Your task to perform on an android device: turn off airplane mode Image 0: 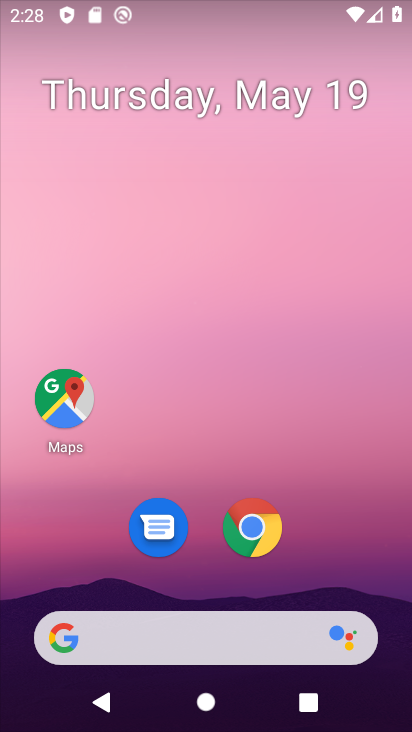
Step 0: drag from (358, 689) to (225, 141)
Your task to perform on an android device: turn off airplane mode Image 1: 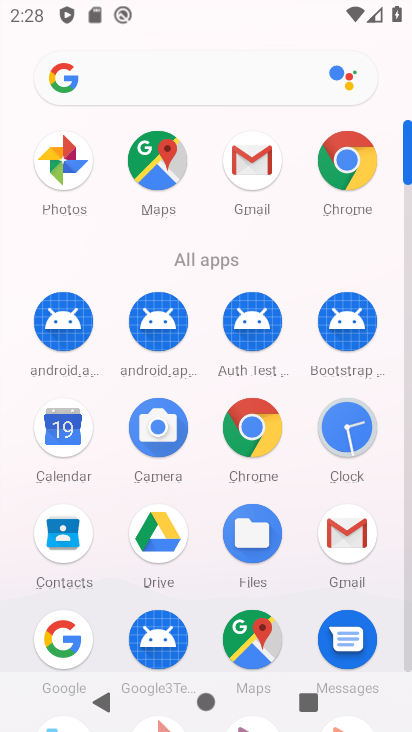
Step 1: drag from (278, 445) to (241, 113)
Your task to perform on an android device: turn off airplane mode Image 2: 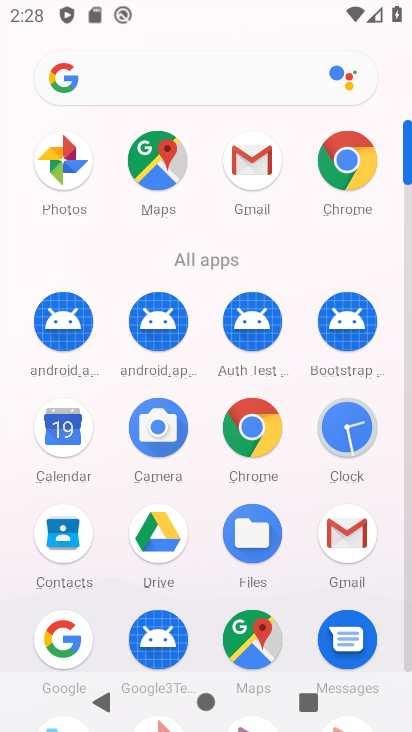
Step 2: drag from (261, 459) to (271, 93)
Your task to perform on an android device: turn off airplane mode Image 3: 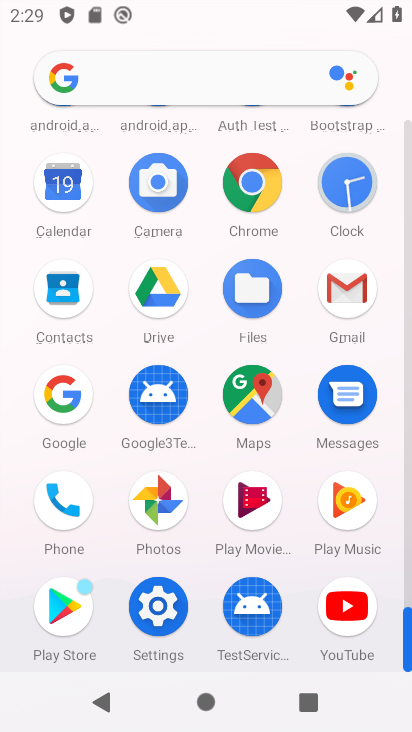
Step 3: click (159, 610)
Your task to perform on an android device: turn off airplane mode Image 4: 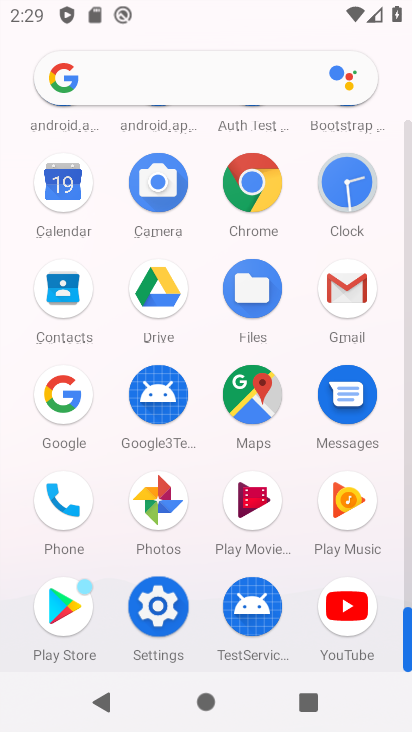
Step 4: click (160, 609)
Your task to perform on an android device: turn off airplane mode Image 5: 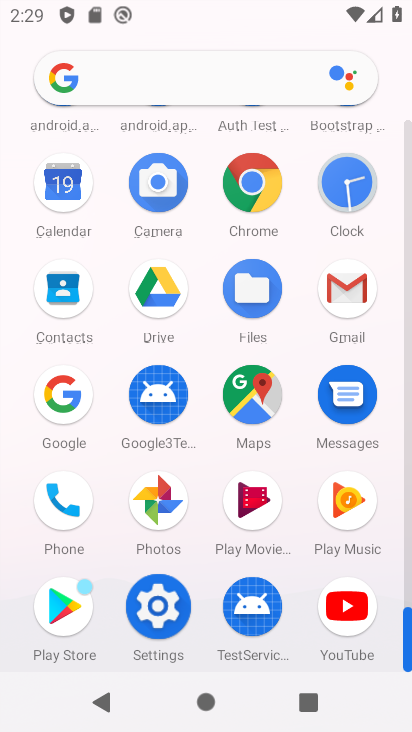
Step 5: click (160, 609)
Your task to perform on an android device: turn off airplane mode Image 6: 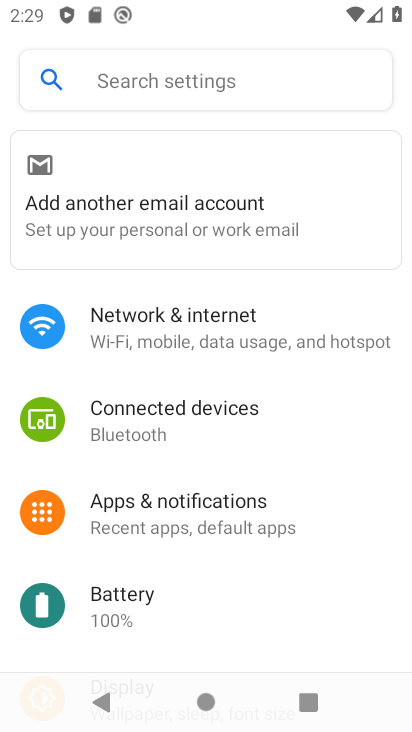
Step 6: drag from (192, 572) to (167, 180)
Your task to perform on an android device: turn off airplane mode Image 7: 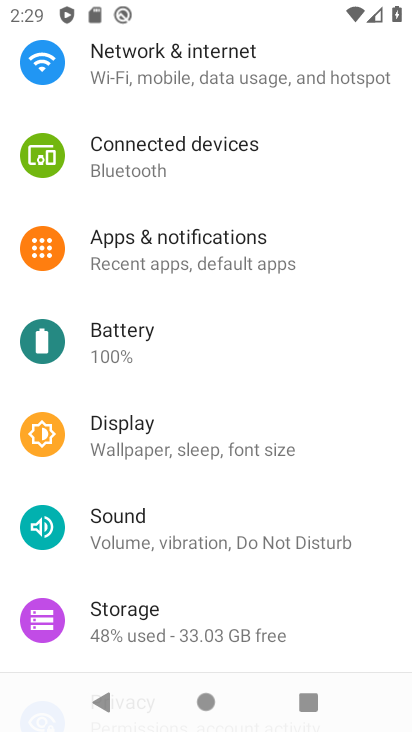
Step 7: drag from (167, 412) to (122, 206)
Your task to perform on an android device: turn off airplane mode Image 8: 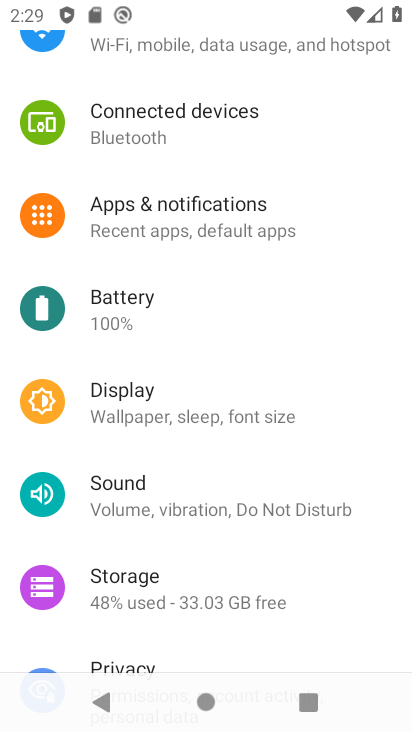
Step 8: drag from (168, 224) to (206, 511)
Your task to perform on an android device: turn off airplane mode Image 9: 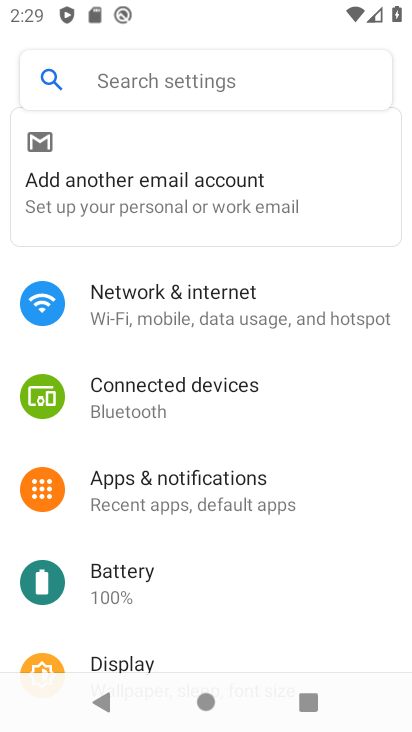
Step 9: drag from (206, 273) to (255, 611)
Your task to perform on an android device: turn off airplane mode Image 10: 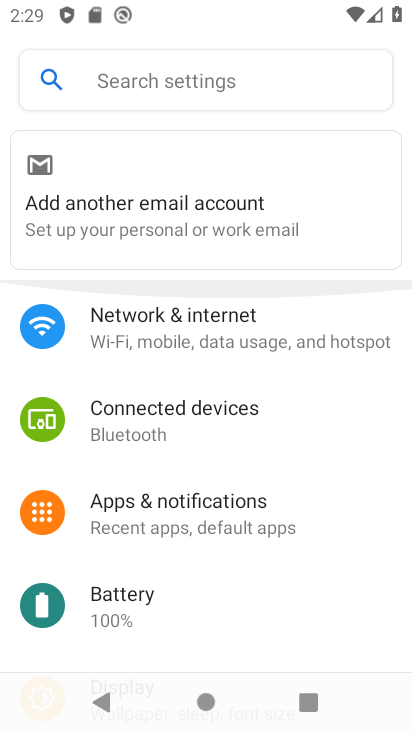
Step 10: click (206, 313)
Your task to perform on an android device: turn off airplane mode Image 11: 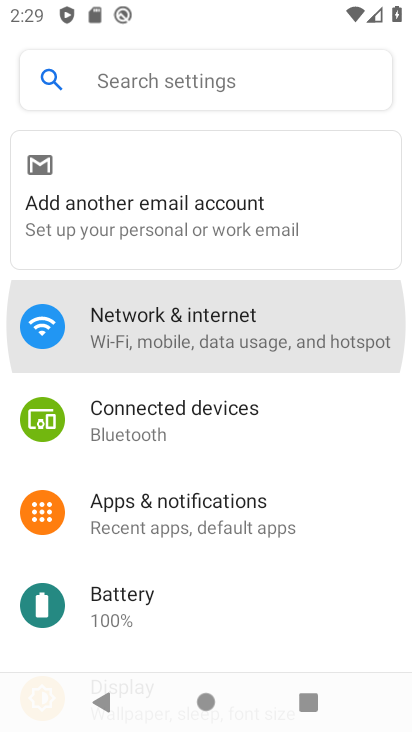
Step 11: click (205, 313)
Your task to perform on an android device: turn off airplane mode Image 12: 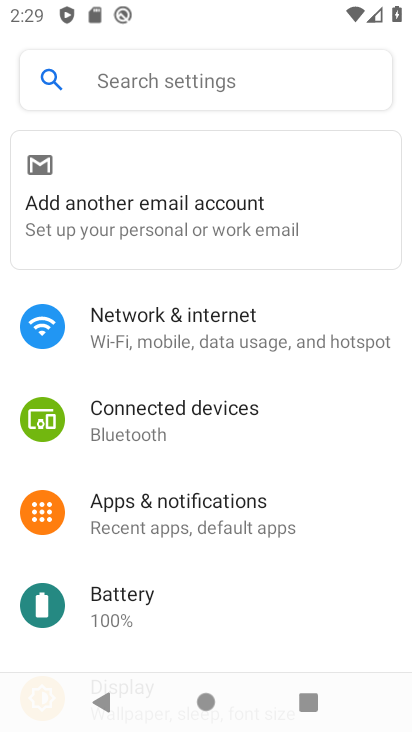
Step 12: click (204, 320)
Your task to perform on an android device: turn off airplane mode Image 13: 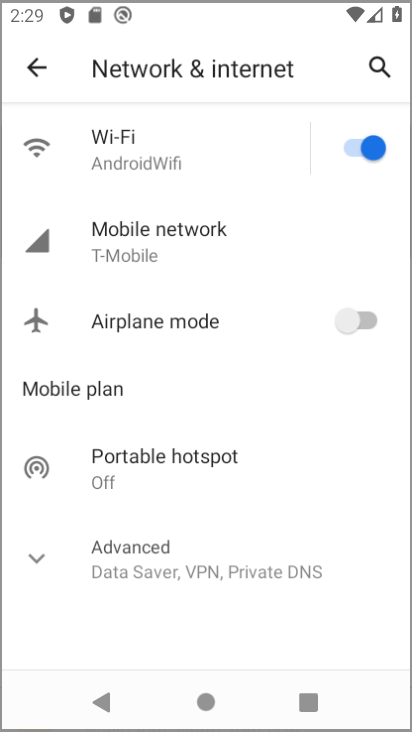
Step 13: click (204, 320)
Your task to perform on an android device: turn off airplane mode Image 14: 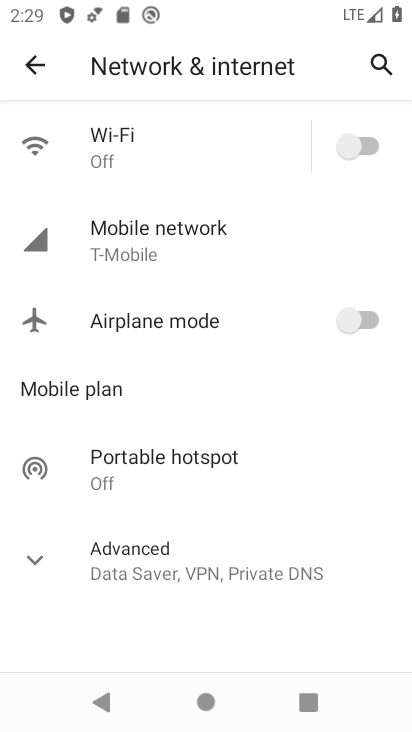
Step 14: click (348, 330)
Your task to perform on an android device: turn off airplane mode Image 15: 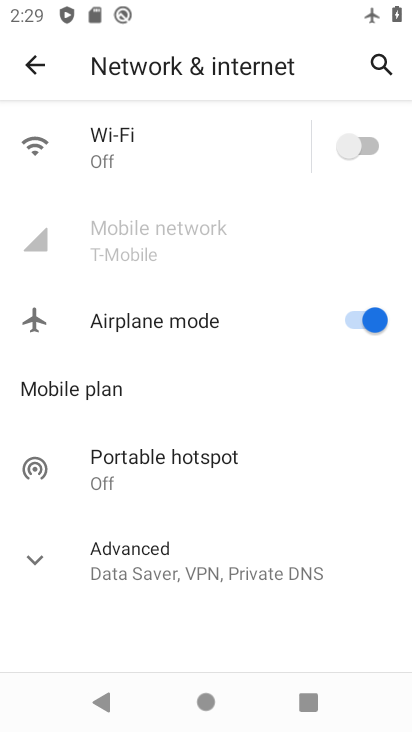
Step 15: click (369, 323)
Your task to perform on an android device: turn off airplane mode Image 16: 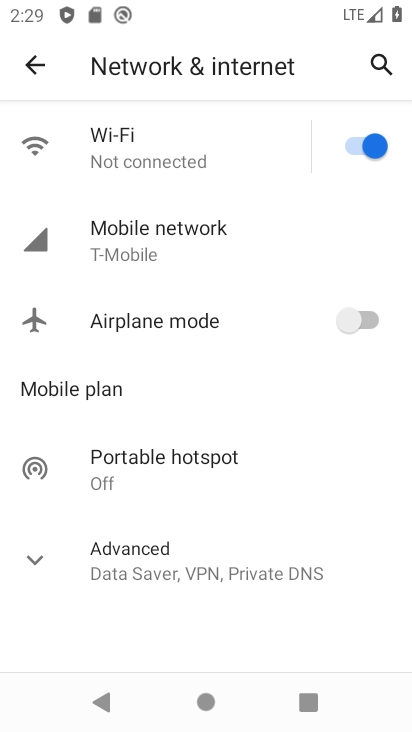
Step 16: task complete